Your task to perform on an android device: Open the stopwatch Image 0: 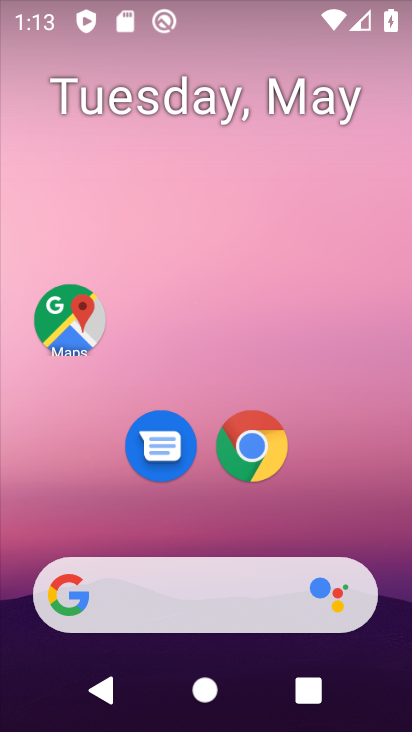
Step 0: drag from (217, 493) to (322, 498)
Your task to perform on an android device: Open the stopwatch Image 1: 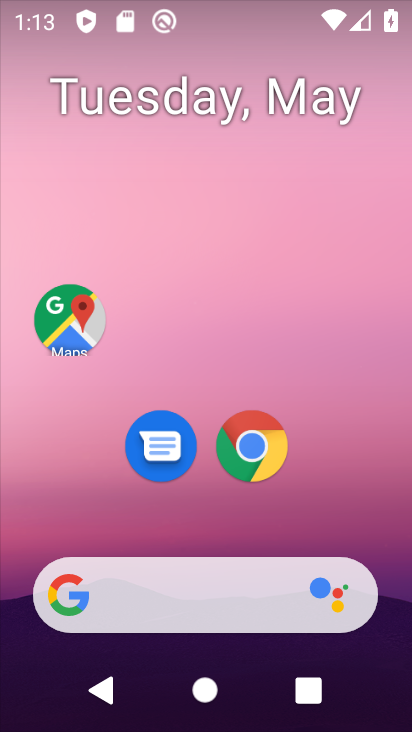
Step 1: drag from (232, 494) to (410, 689)
Your task to perform on an android device: Open the stopwatch Image 2: 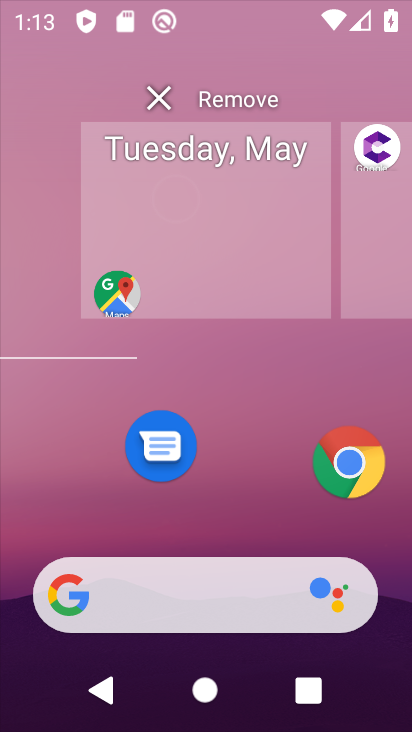
Step 2: click (211, 510)
Your task to perform on an android device: Open the stopwatch Image 3: 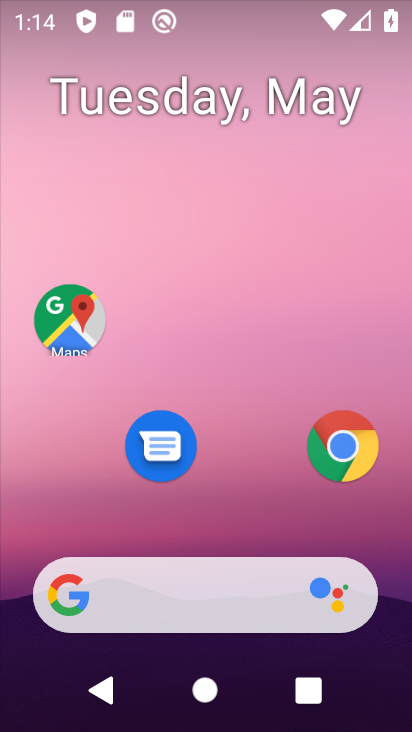
Step 3: drag from (195, 563) to (356, 557)
Your task to perform on an android device: Open the stopwatch Image 4: 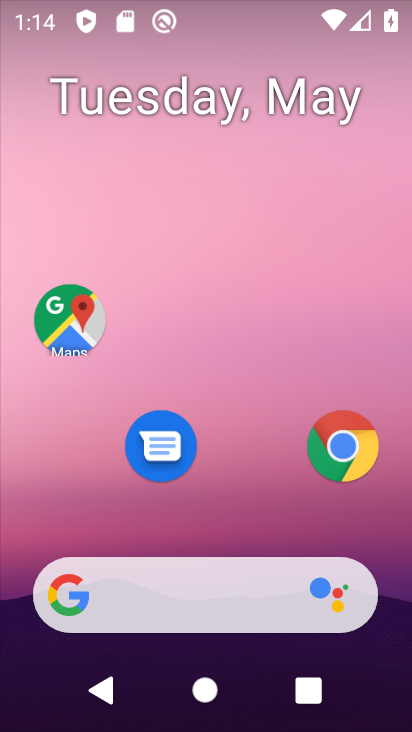
Step 4: drag from (172, 547) to (328, 69)
Your task to perform on an android device: Open the stopwatch Image 5: 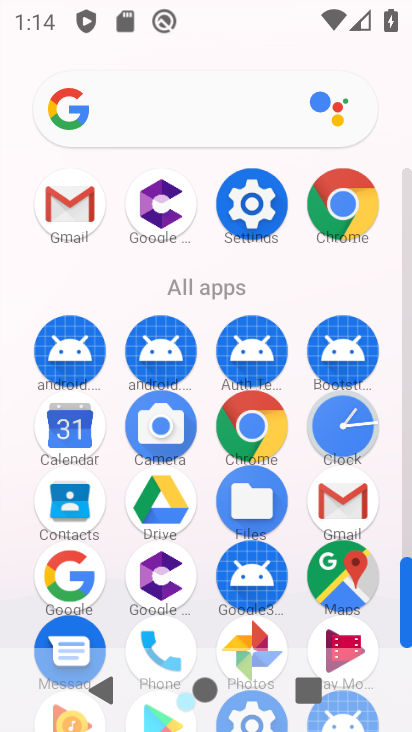
Step 5: click (339, 411)
Your task to perform on an android device: Open the stopwatch Image 6: 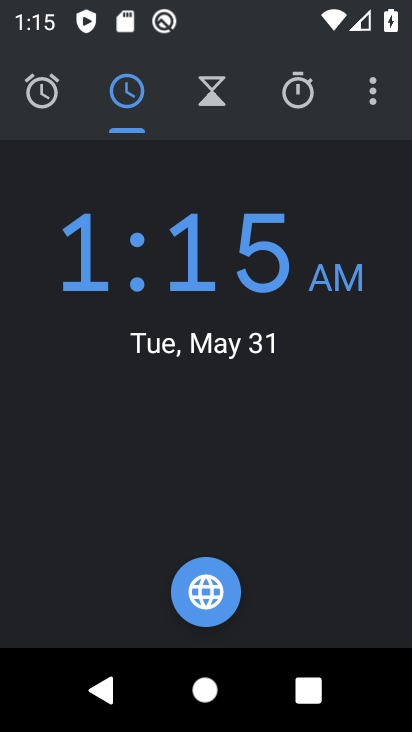
Step 6: click (312, 86)
Your task to perform on an android device: Open the stopwatch Image 7: 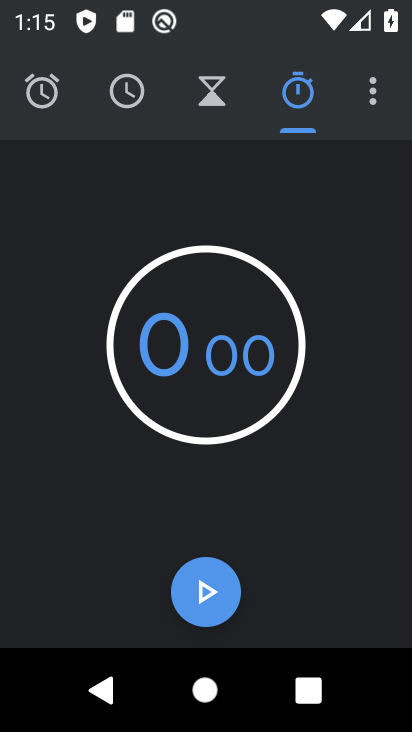
Step 7: task complete